Your task to perform on an android device: Open Yahoo.com Image 0: 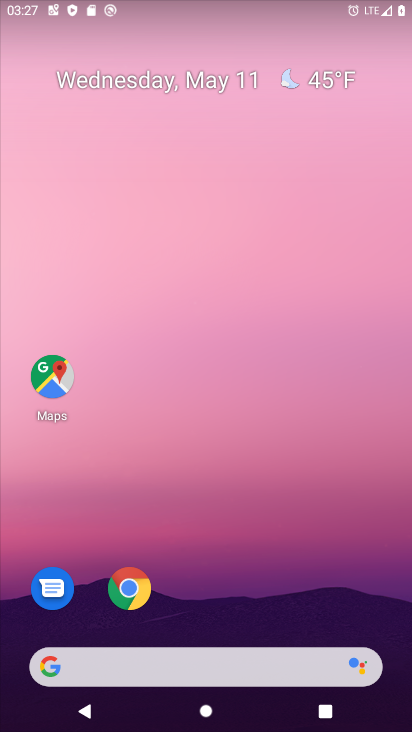
Step 0: click (124, 596)
Your task to perform on an android device: Open Yahoo.com Image 1: 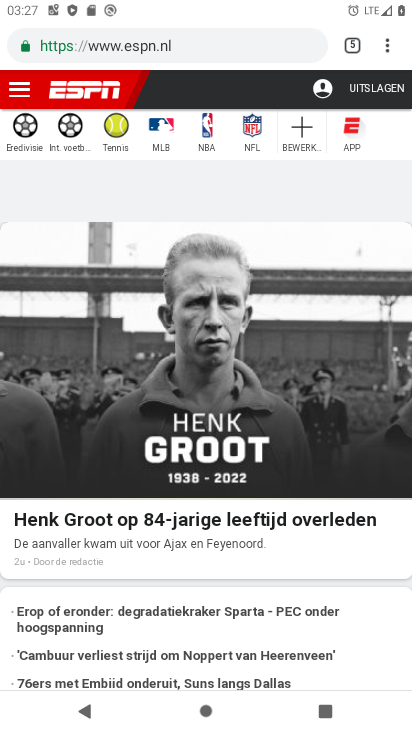
Step 1: click (349, 36)
Your task to perform on an android device: Open Yahoo.com Image 2: 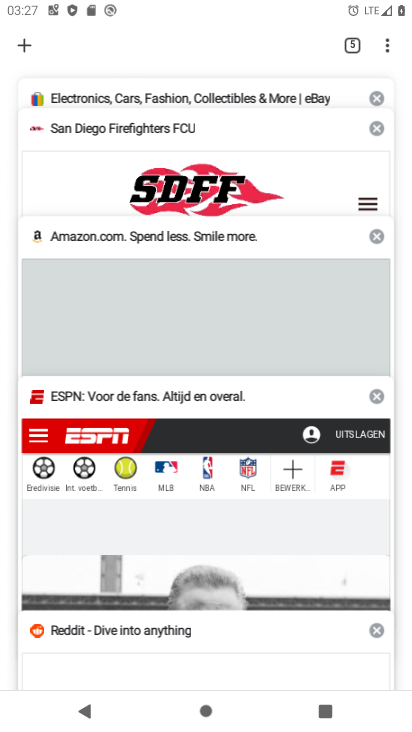
Step 2: click (22, 46)
Your task to perform on an android device: Open Yahoo.com Image 3: 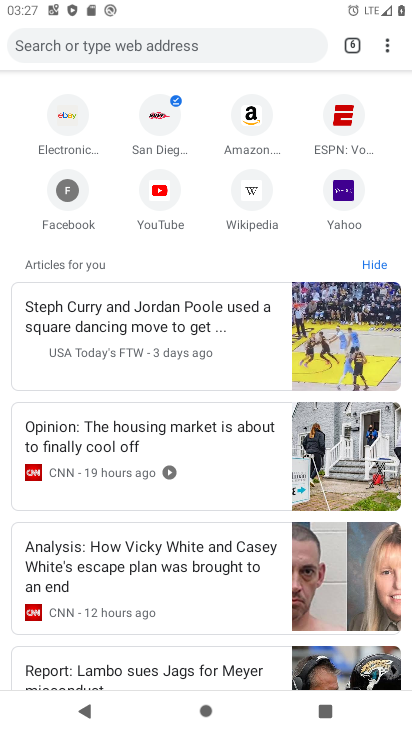
Step 3: click (346, 206)
Your task to perform on an android device: Open Yahoo.com Image 4: 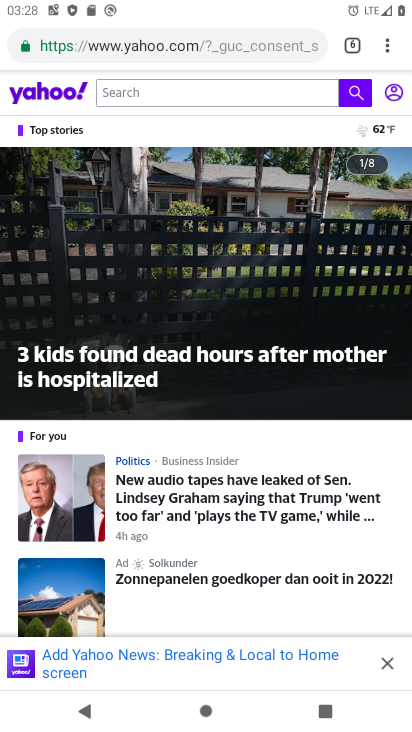
Step 4: task complete